Your task to perform on an android device: Open Amazon Image 0: 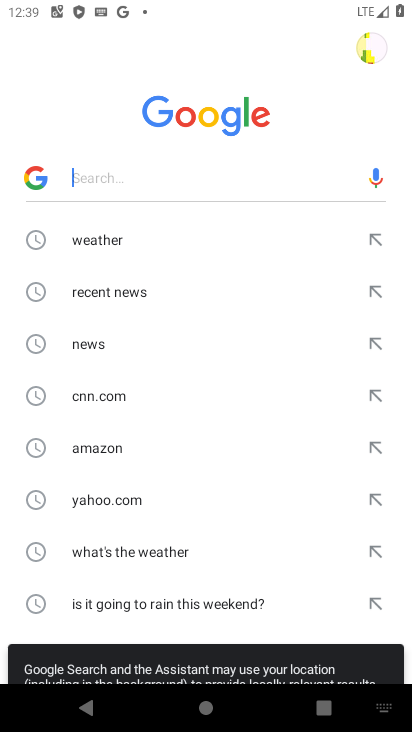
Step 0: press home button
Your task to perform on an android device: Open Amazon Image 1: 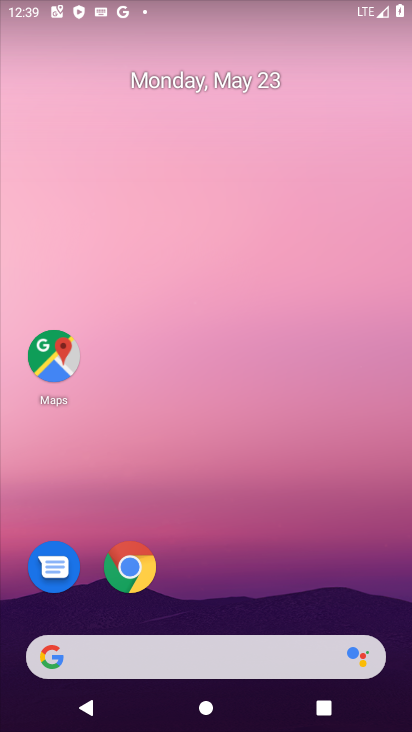
Step 1: click (127, 592)
Your task to perform on an android device: Open Amazon Image 2: 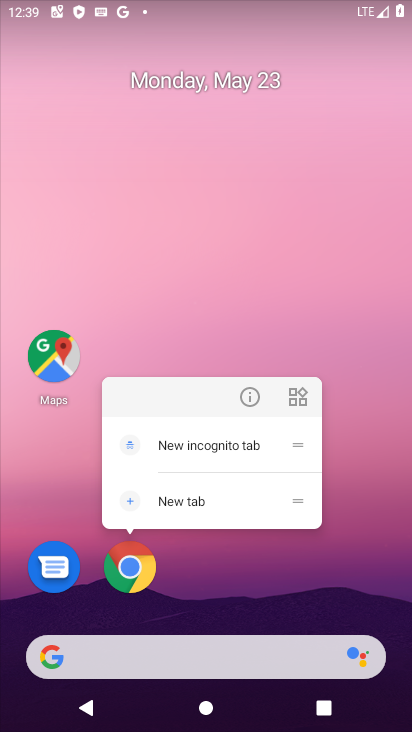
Step 2: click (150, 575)
Your task to perform on an android device: Open Amazon Image 3: 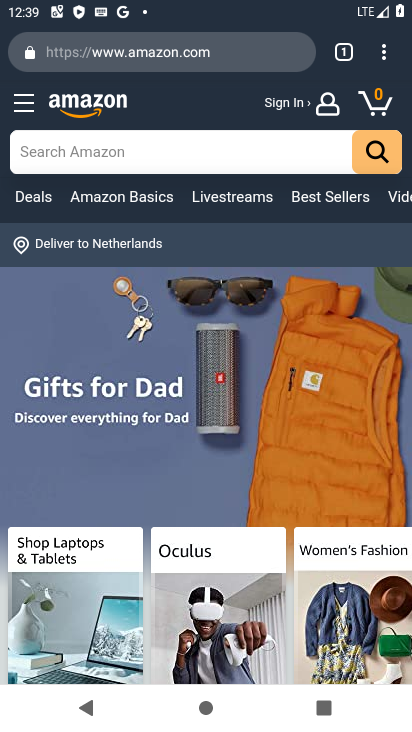
Step 3: task complete